Your task to perform on an android device: Open calendar and show me the fourth week of next month Image 0: 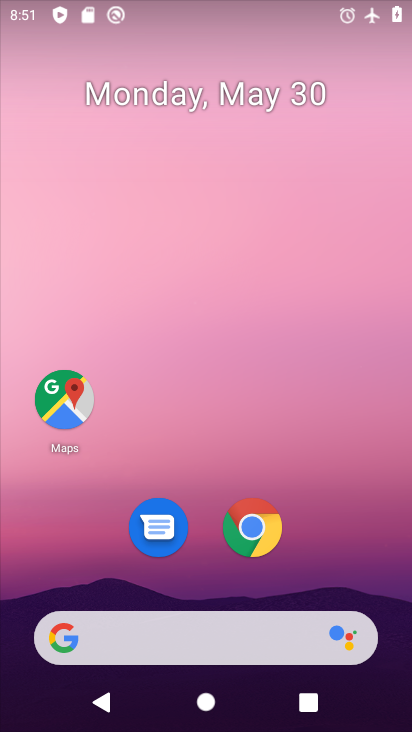
Step 0: drag from (314, 645) to (255, 2)
Your task to perform on an android device: Open calendar and show me the fourth week of next month Image 1: 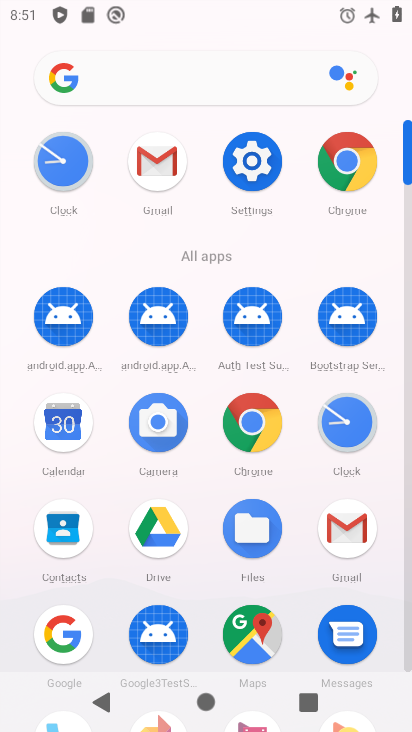
Step 1: click (77, 539)
Your task to perform on an android device: Open calendar and show me the fourth week of next month Image 2: 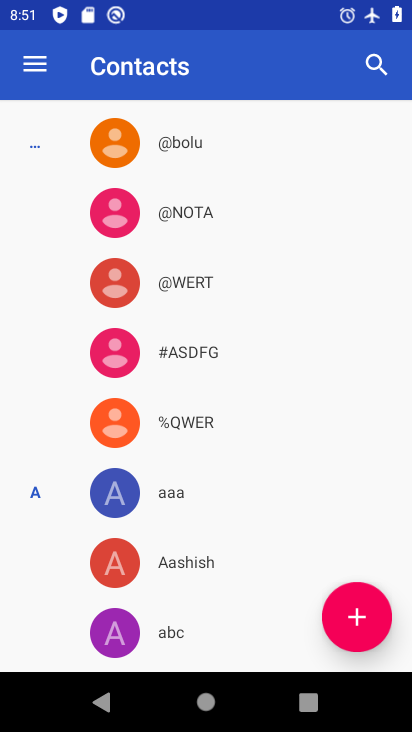
Step 2: press home button
Your task to perform on an android device: Open calendar and show me the fourth week of next month Image 3: 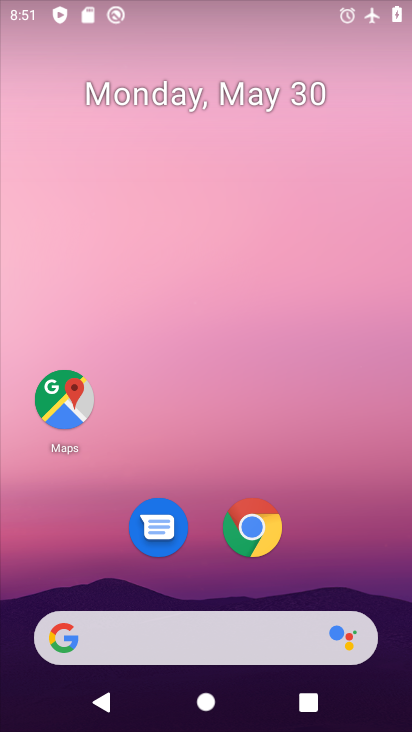
Step 3: drag from (114, 567) to (150, 1)
Your task to perform on an android device: Open calendar and show me the fourth week of next month Image 4: 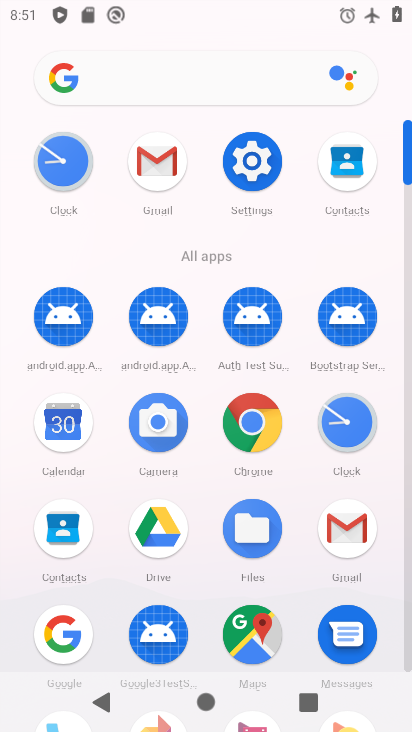
Step 4: click (71, 423)
Your task to perform on an android device: Open calendar and show me the fourth week of next month Image 5: 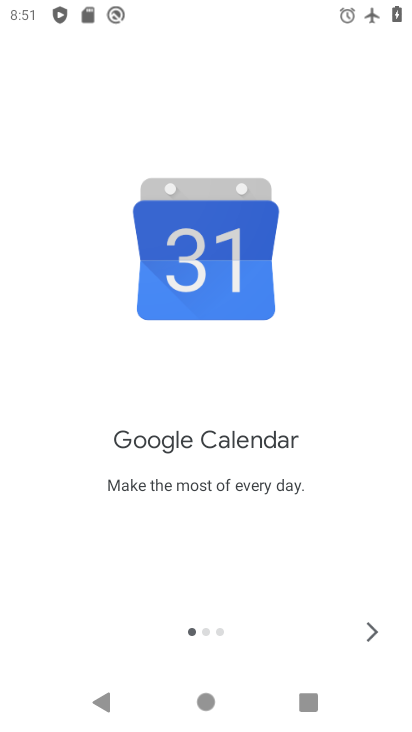
Step 5: click (377, 635)
Your task to perform on an android device: Open calendar and show me the fourth week of next month Image 6: 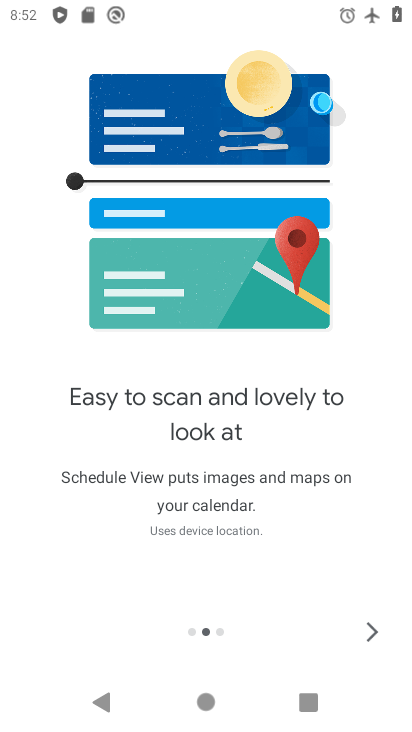
Step 6: click (377, 635)
Your task to perform on an android device: Open calendar and show me the fourth week of next month Image 7: 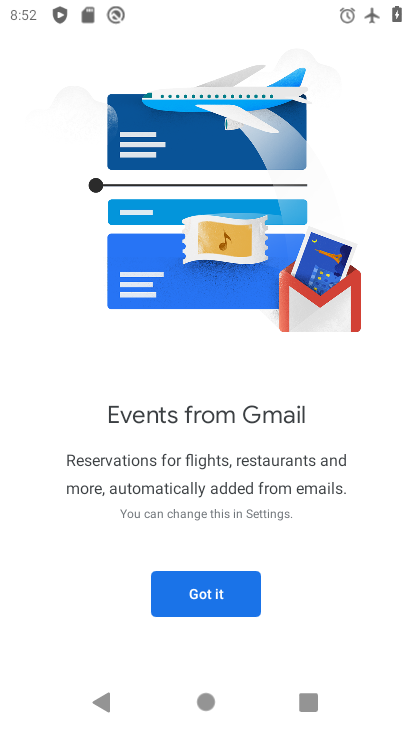
Step 7: click (224, 600)
Your task to perform on an android device: Open calendar and show me the fourth week of next month Image 8: 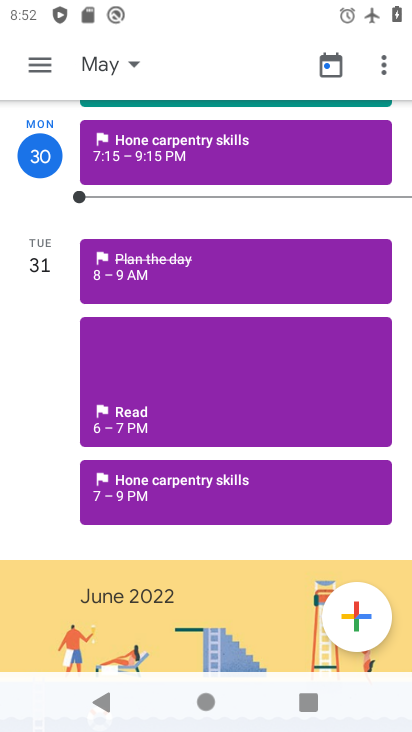
Step 8: click (130, 57)
Your task to perform on an android device: Open calendar and show me the fourth week of next month Image 9: 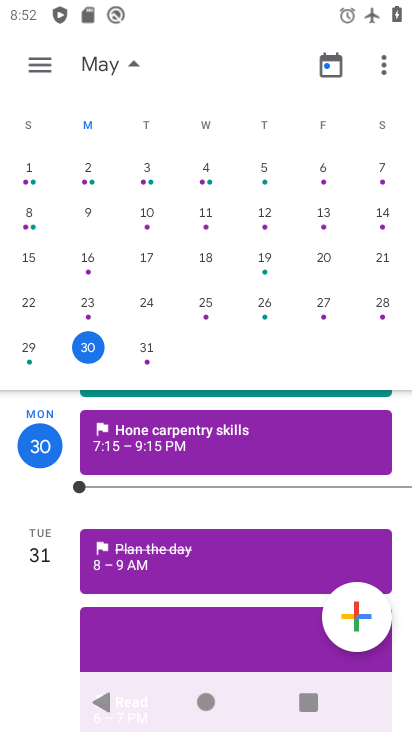
Step 9: drag from (333, 243) to (12, 271)
Your task to perform on an android device: Open calendar and show me the fourth week of next month Image 10: 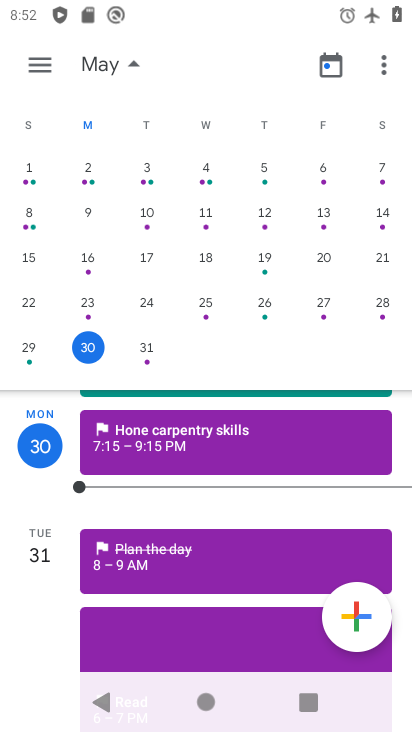
Step 10: drag from (328, 226) to (33, 153)
Your task to perform on an android device: Open calendar and show me the fourth week of next month Image 11: 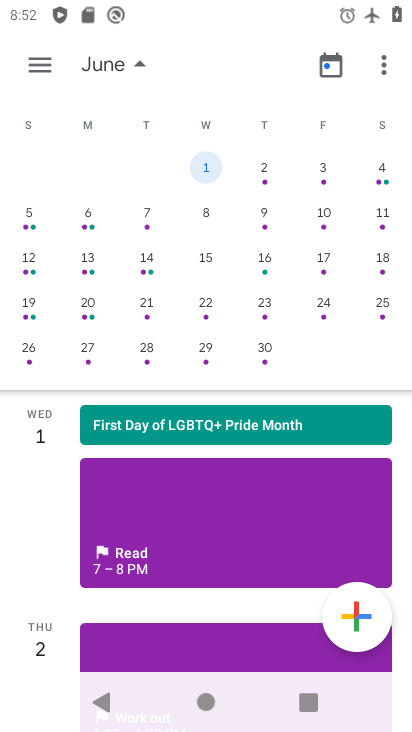
Step 11: click (322, 312)
Your task to perform on an android device: Open calendar and show me the fourth week of next month Image 12: 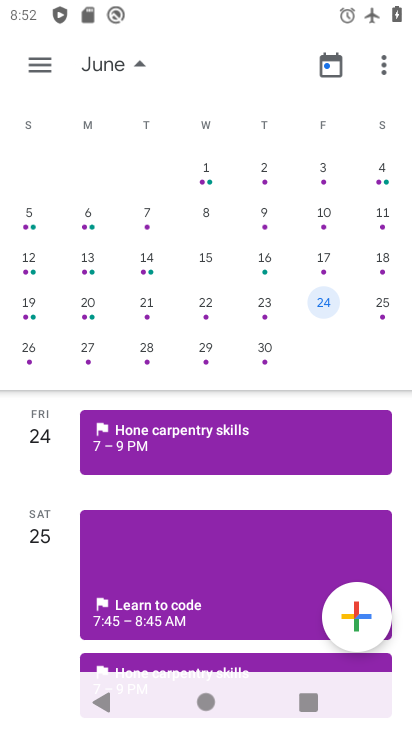
Step 12: click (51, 68)
Your task to perform on an android device: Open calendar and show me the fourth week of next month Image 13: 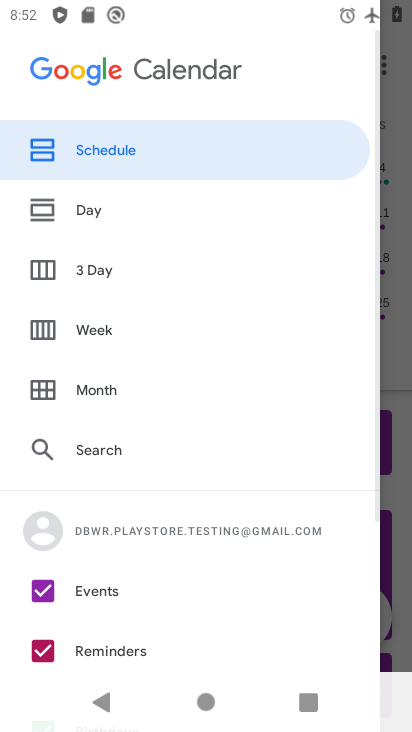
Step 13: click (119, 333)
Your task to perform on an android device: Open calendar and show me the fourth week of next month Image 14: 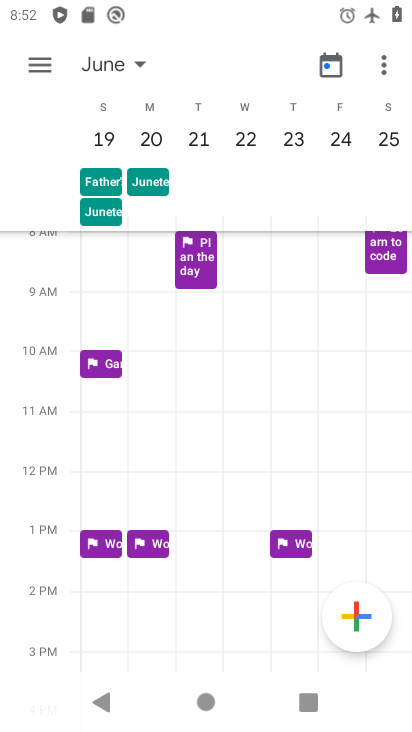
Step 14: task complete